Your task to perform on an android device: install app "TextNow: Call + Text Unlimited" Image 0: 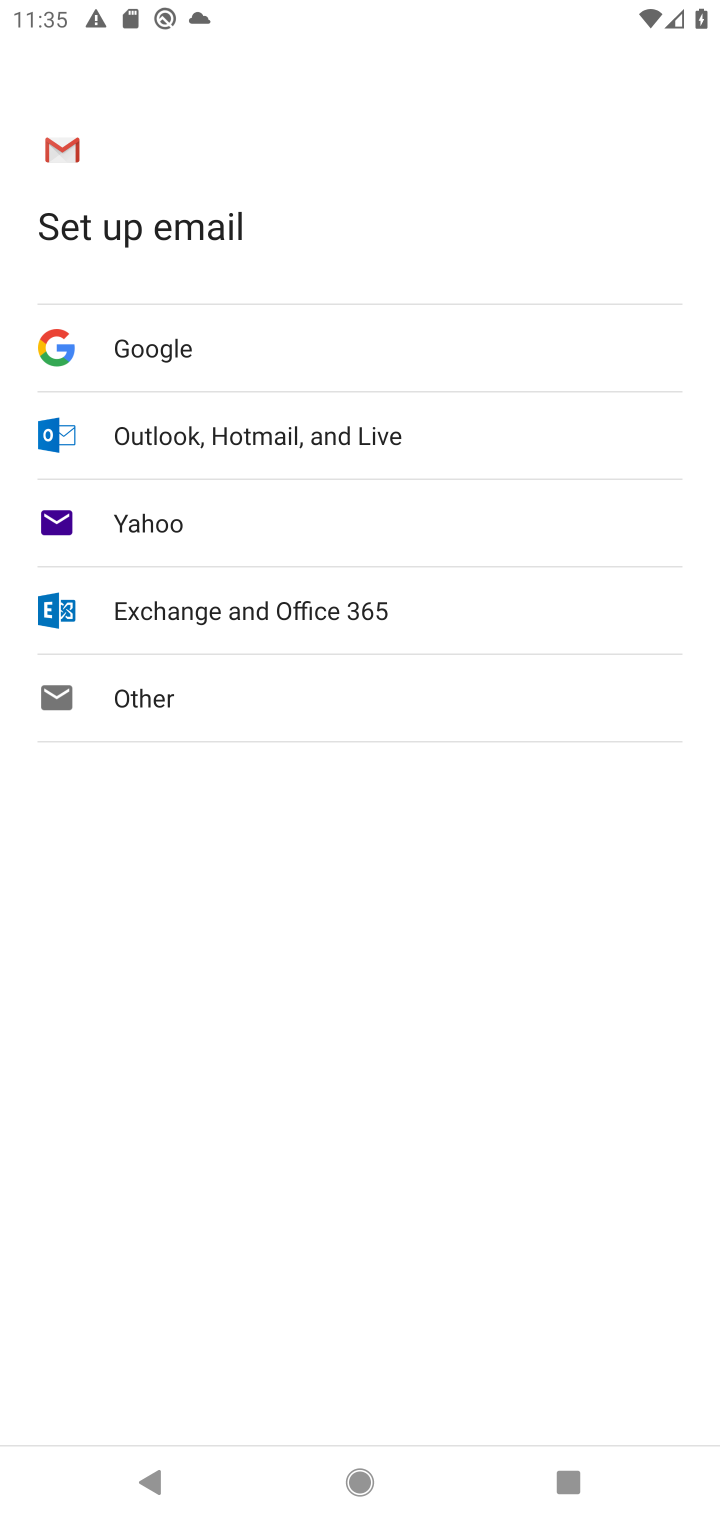
Step 0: press home button
Your task to perform on an android device: install app "TextNow: Call + Text Unlimited" Image 1: 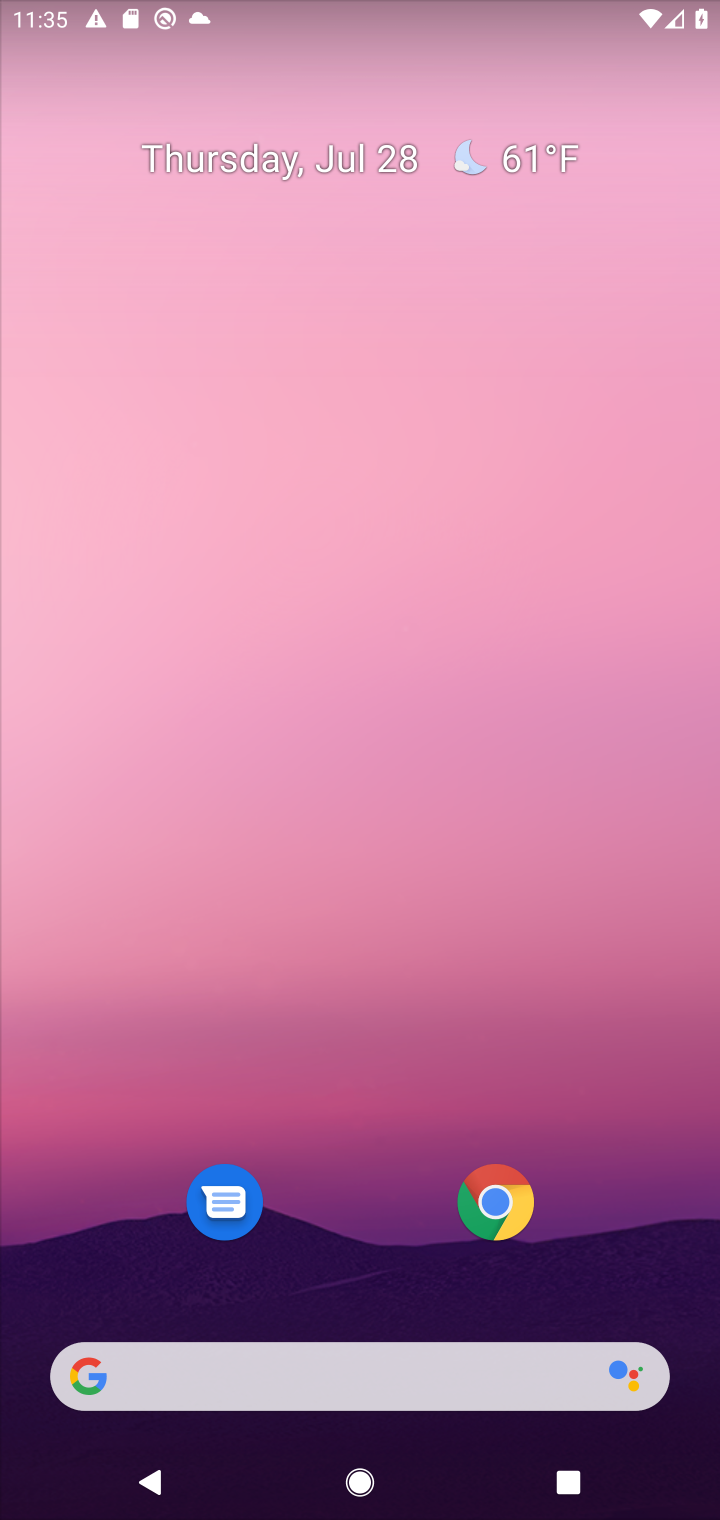
Step 1: click (321, 1390)
Your task to perform on an android device: install app "TextNow: Call + Text Unlimited" Image 2: 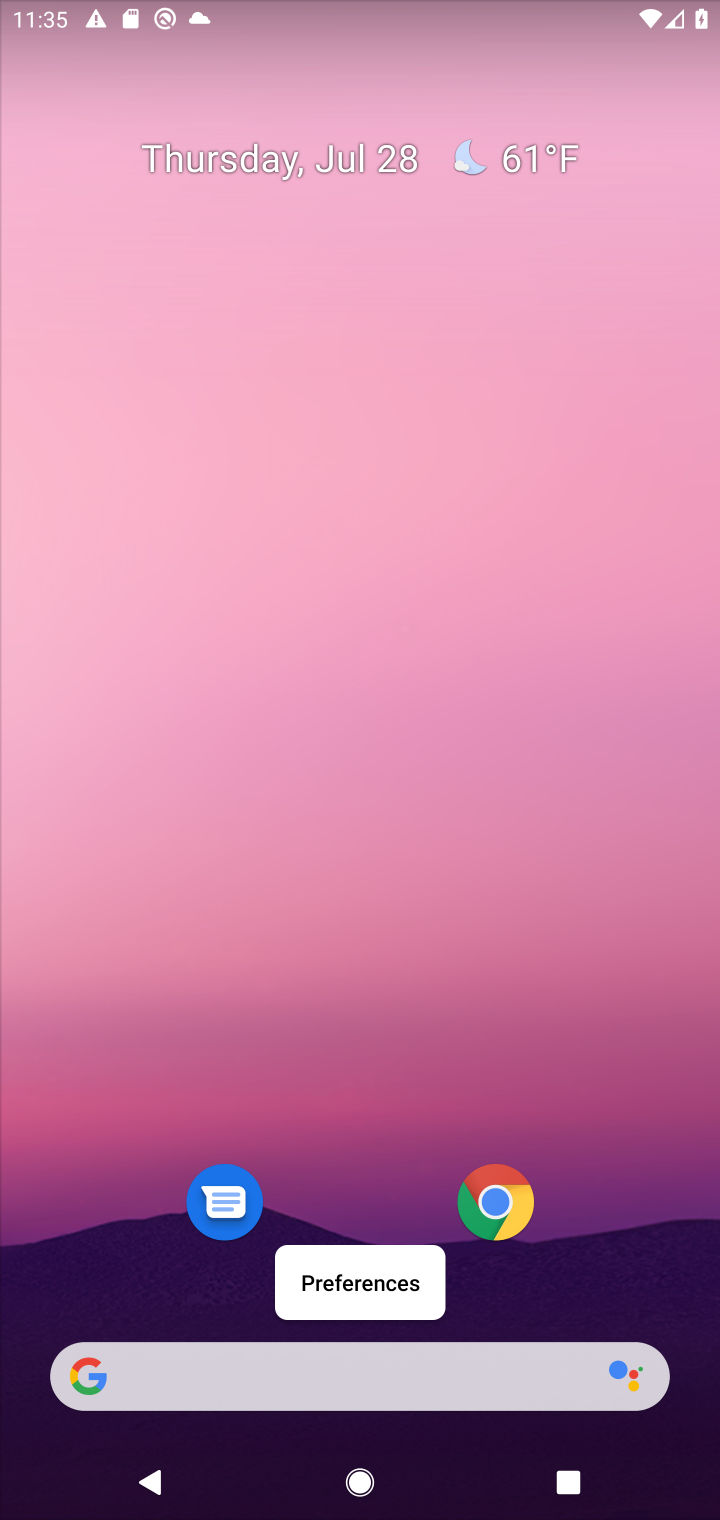
Step 2: click (185, 1357)
Your task to perform on an android device: install app "TextNow: Call + Text Unlimited" Image 3: 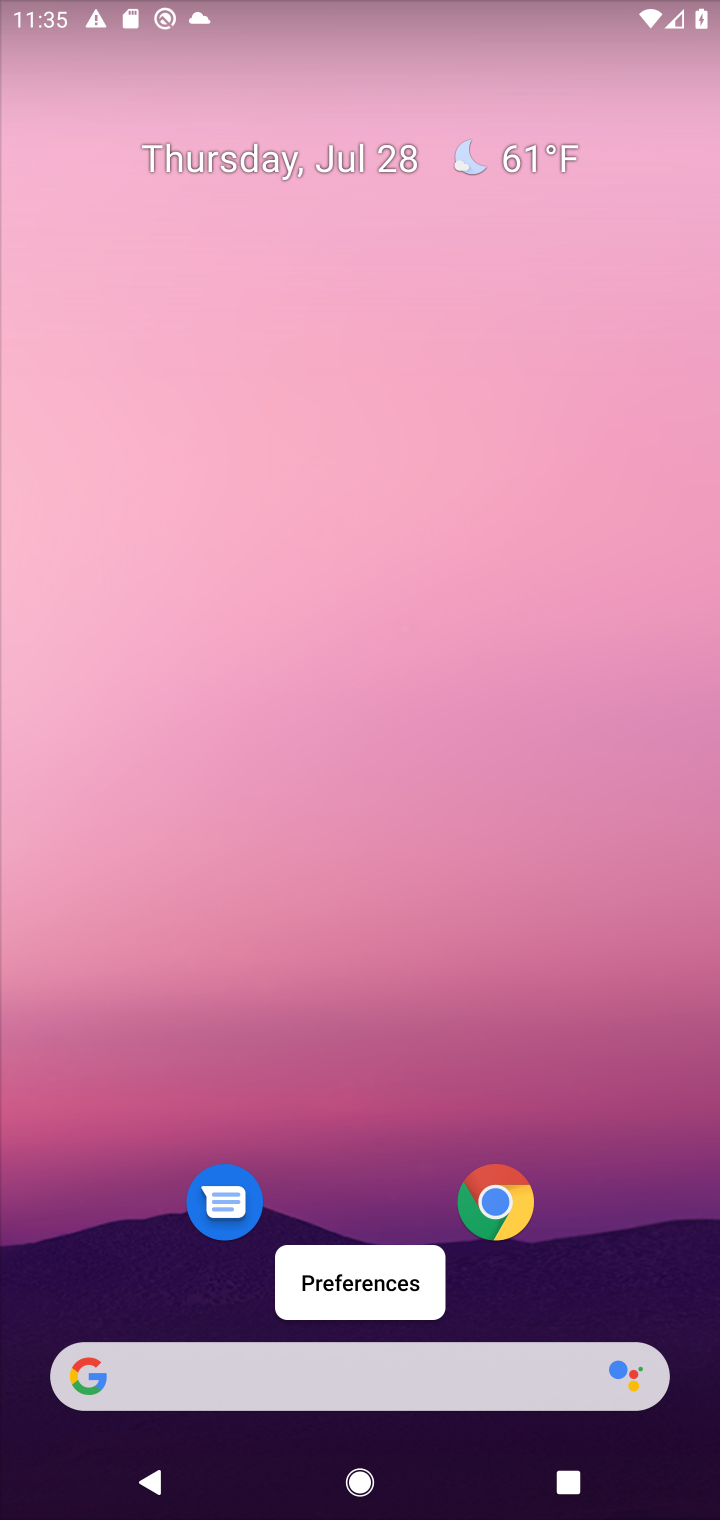
Step 3: type "text now"
Your task to perform on an android device: install app "TextNow: Call + Text Unlimited" Image 4: 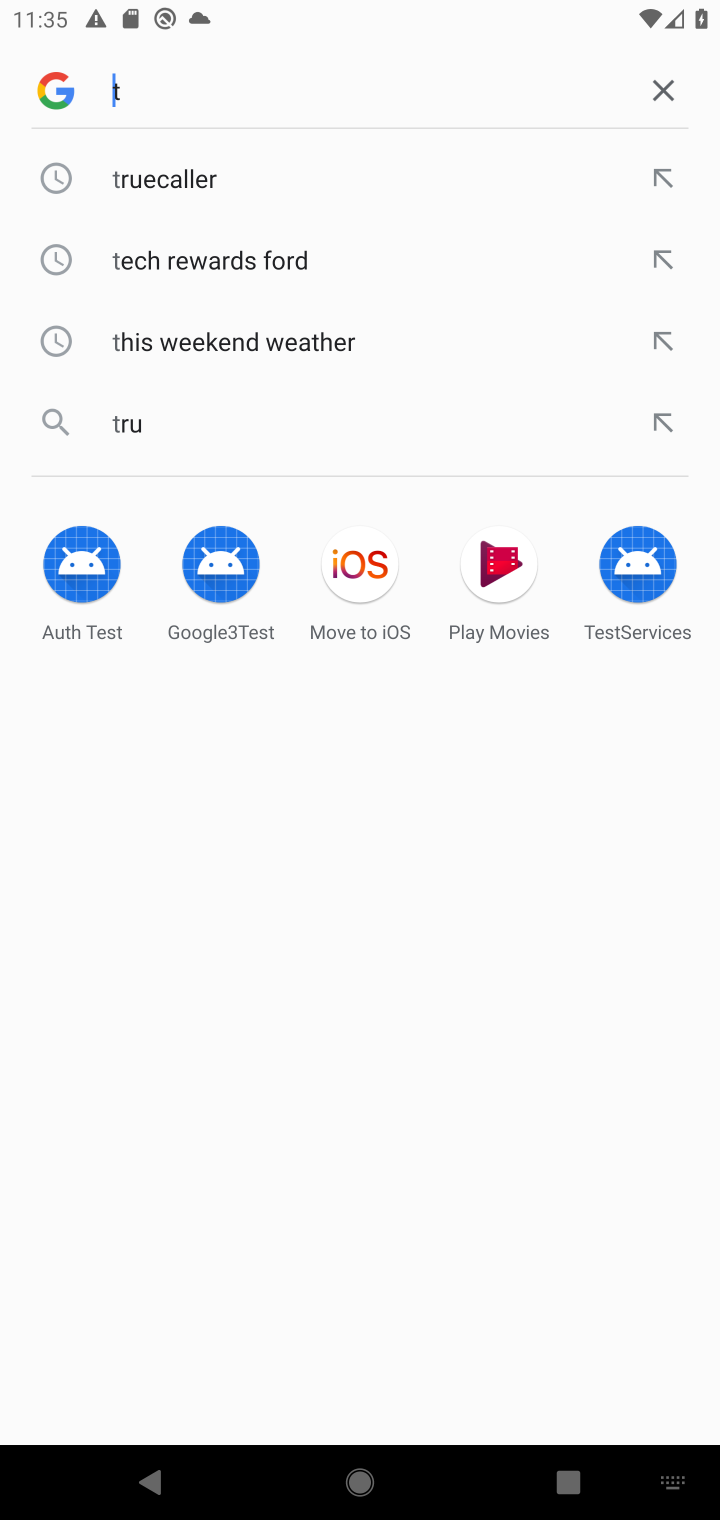
Step 4: click (637, 88)
Your task to perform on an android device: install app "TextNow: Call + Text Unlimited" Image 5: 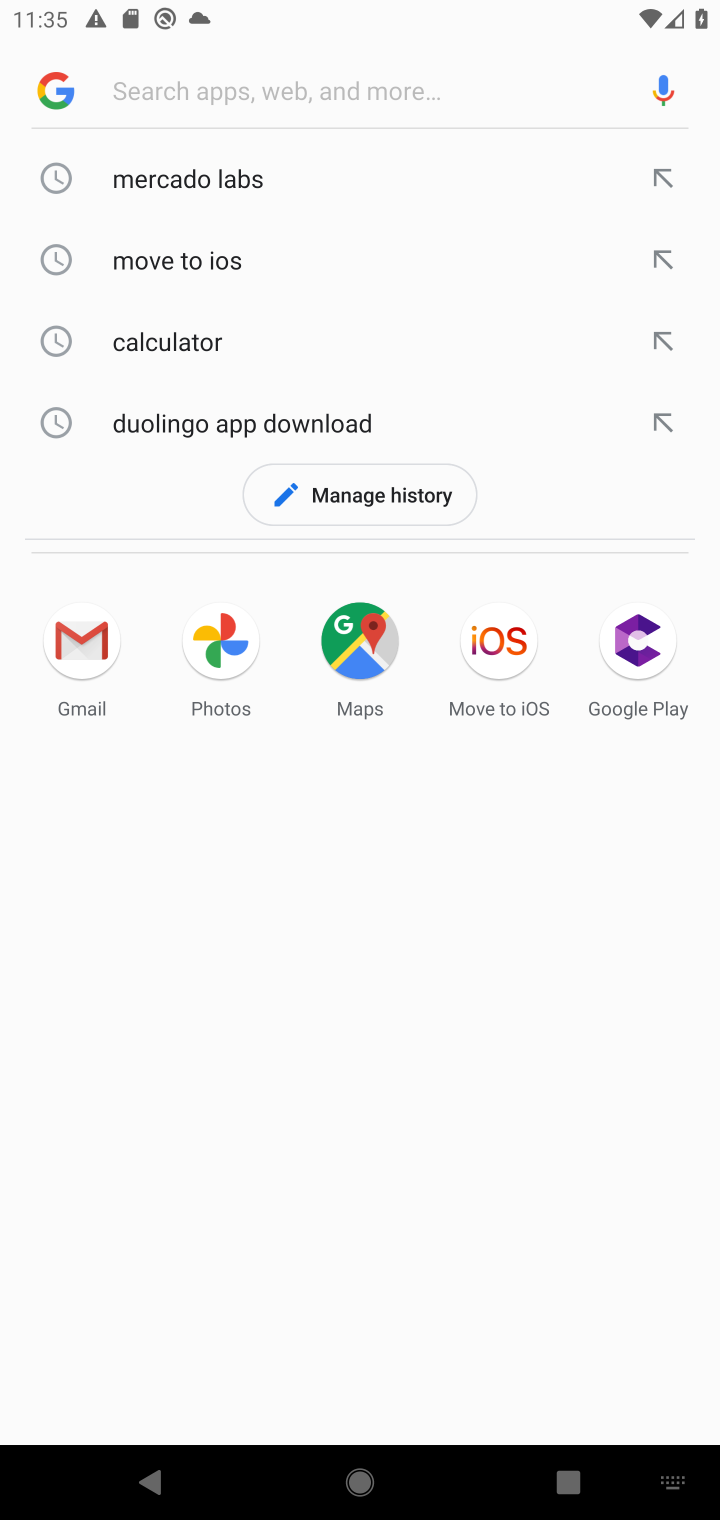
Step 5: type "text now"
Your task to perform on an android device: install app "TextNow: Call + Text Unlimited" Image 6: 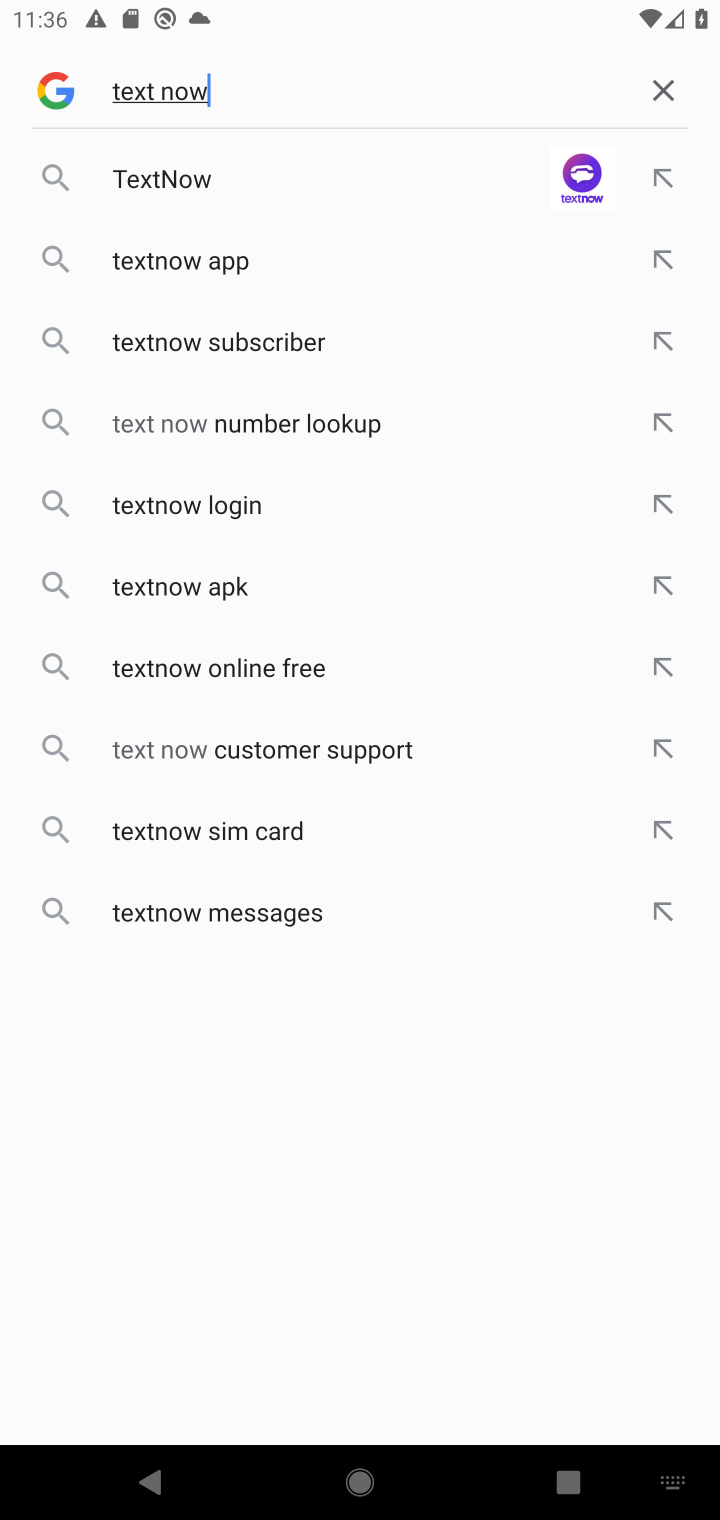
Step 6: click (304, 175)
Your task to perform on an android device: install app "TextNow: Call + Text Unlimited" Image 7: 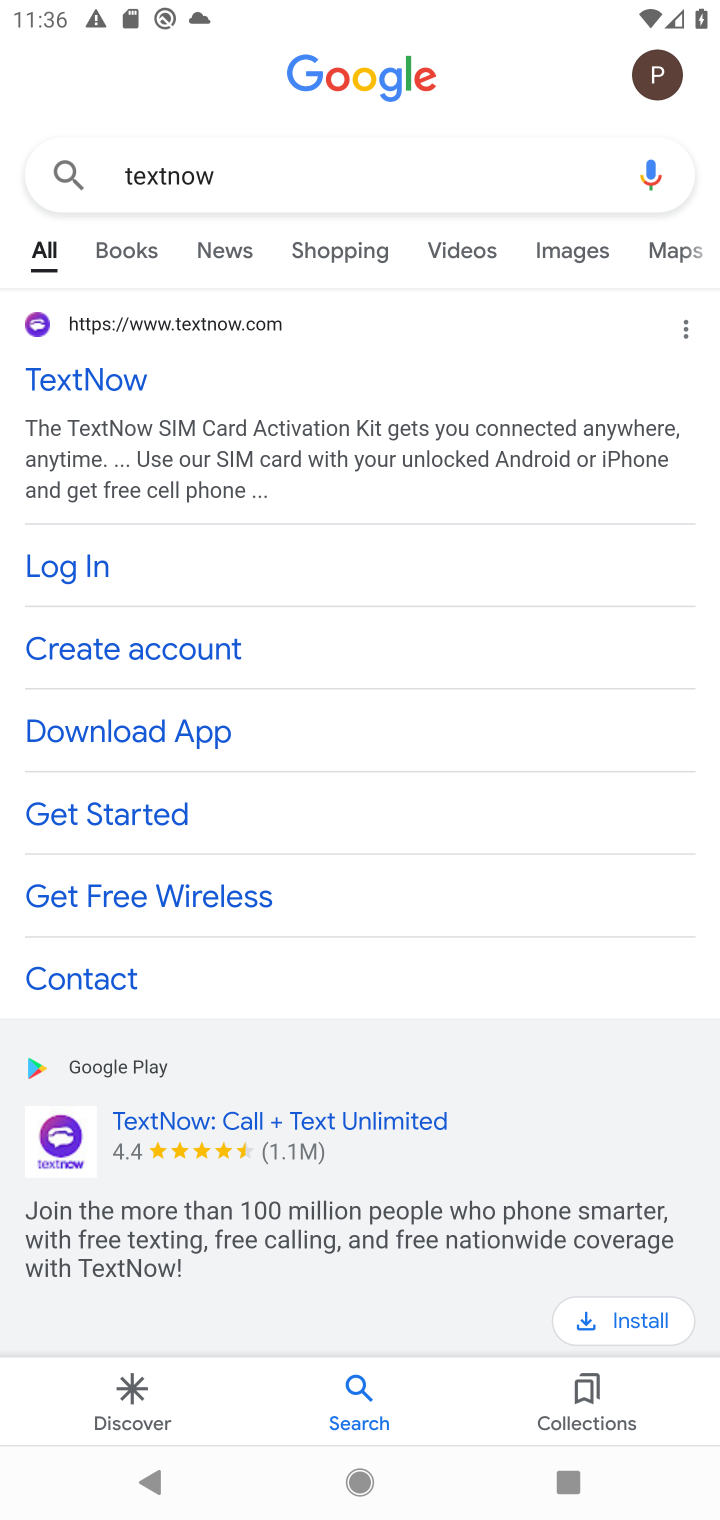
Step 7: click (568, 1301)
Your task to perform on an android device: install app "TextNow: Call + Text Unlimited" Image 8: 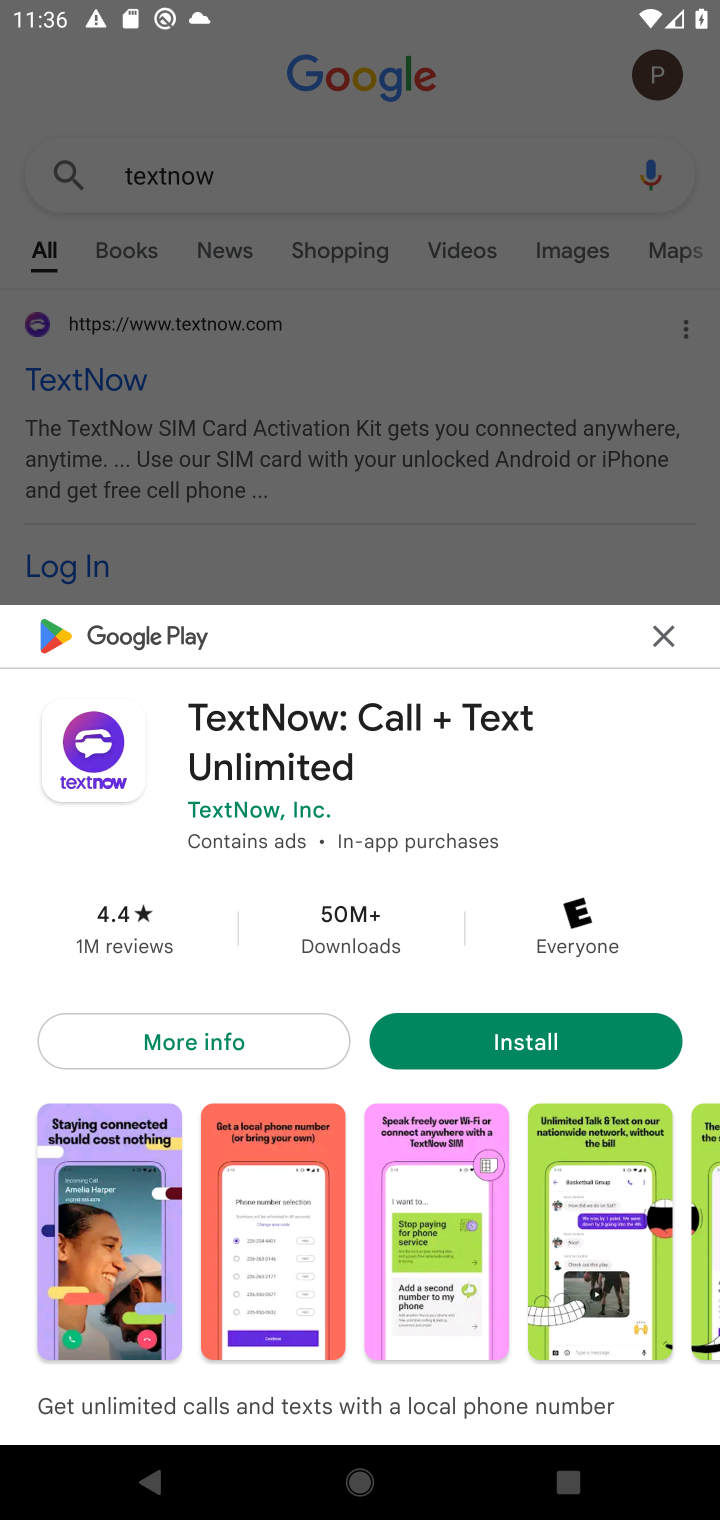
Step 8: click (522, 1067)
Your task to perform on an android device: install app "TextNow: Call + Text Unlimited" Image 9: 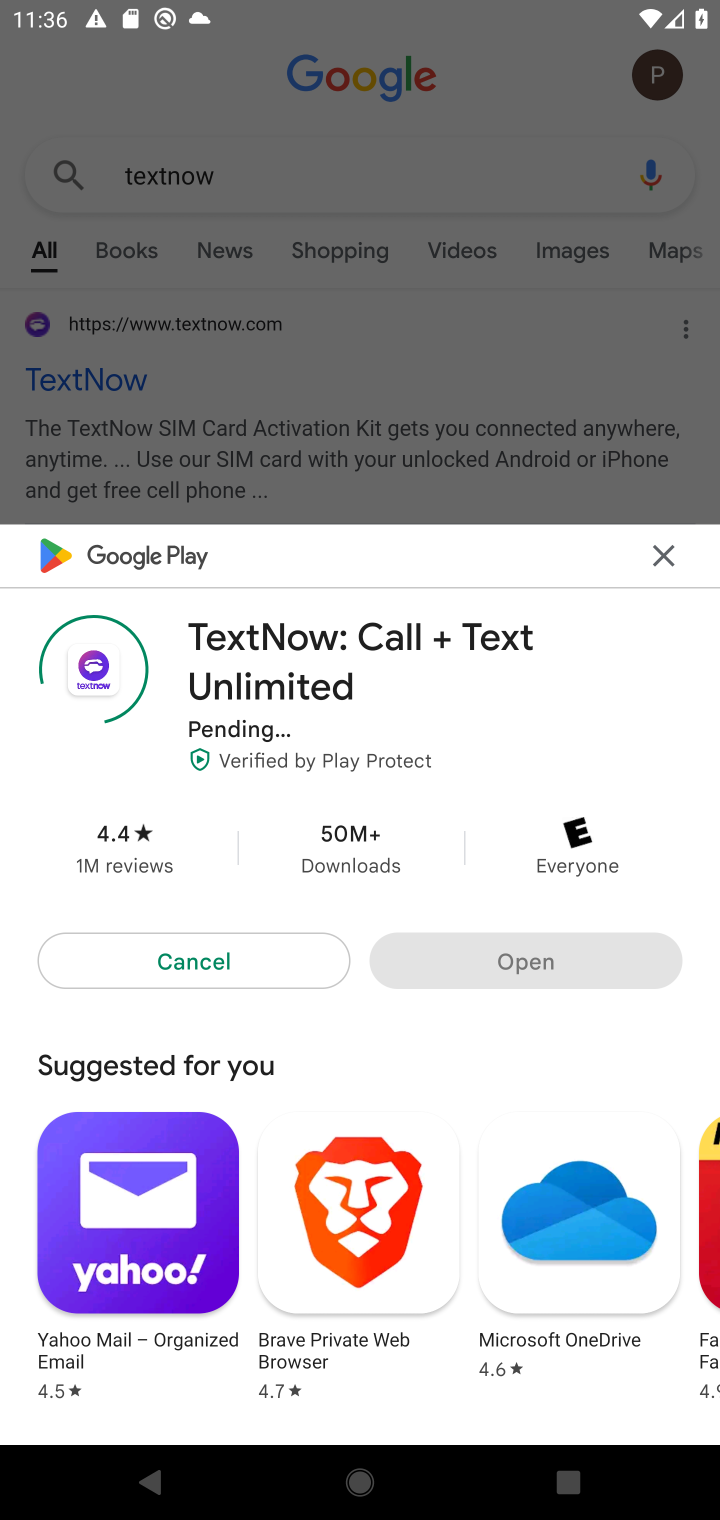
Step 9: task complete